Your task to perform on an android device: Open the web browser Image 0: 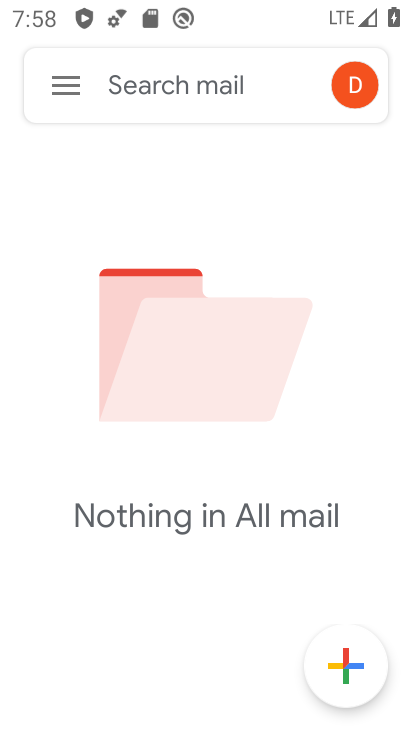
Step 0: press back button
Your task to perform on an android device: Open the web browser Image 1: 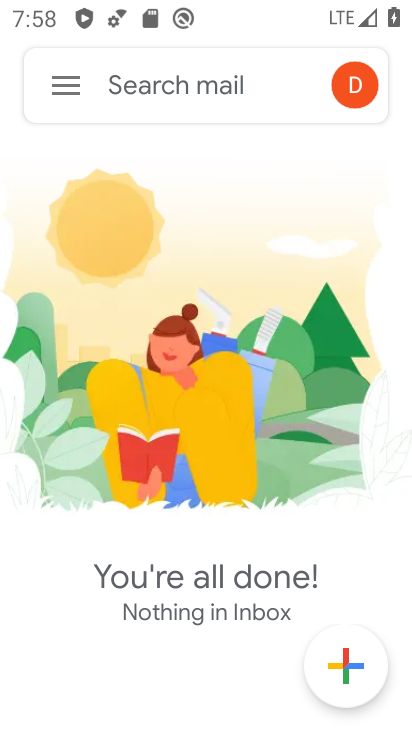
Step 1: press back button
Your task to perform on an android device: Open the web browser Image 2: 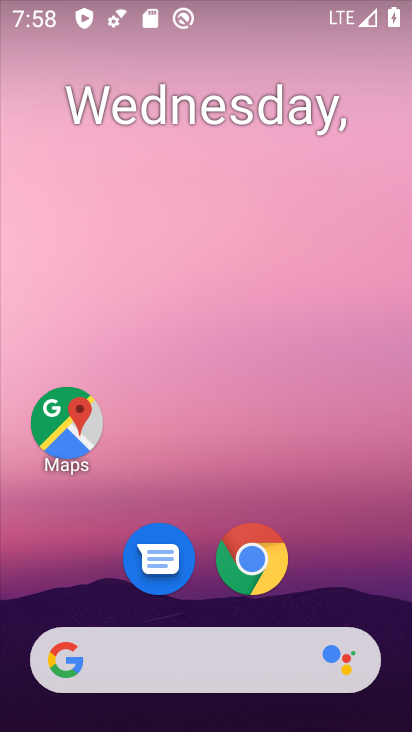
Step 2: click (251, 556)
Your task to perform on an android device: Open the web browser Image 3: 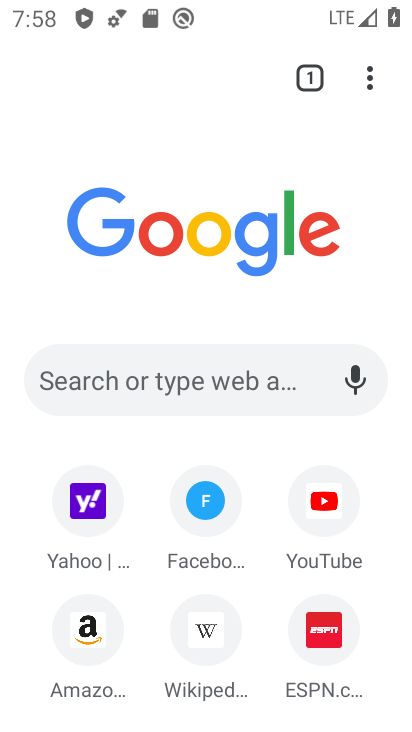
Step 3: task complete